Your task to perform on an android device: toggle pop-ups in chrome Image 0: 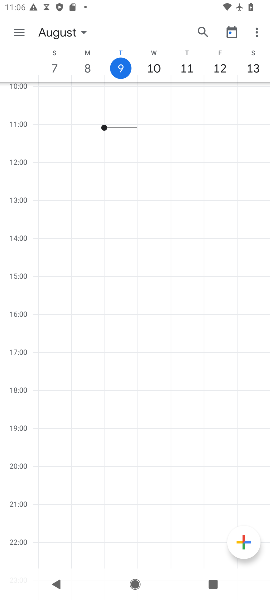
Step 0: press home button
Your task to perform on an android device: toggle pop-ups in chrome Image 1: 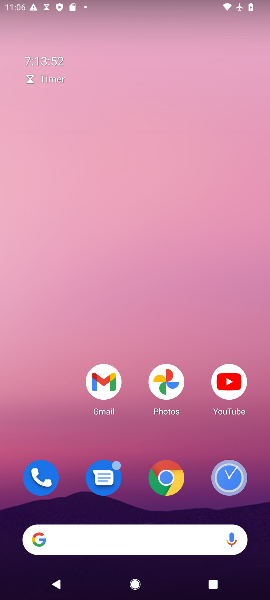
Step 1: drag from (191, 359) to (143, 5)
Your task to perform on an android device: toggle pop-ups in chrome Image 2: 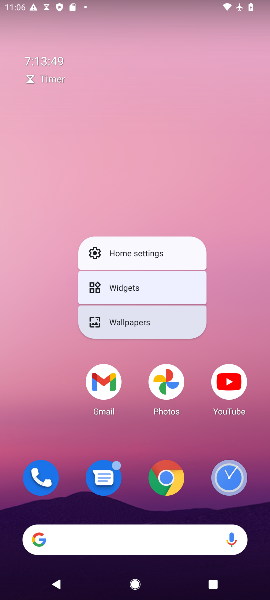
Step 2: drag from (265, 456) to (206, 96)
Your task to perform on an android device: toggle pop-ups in chrome Image 3: 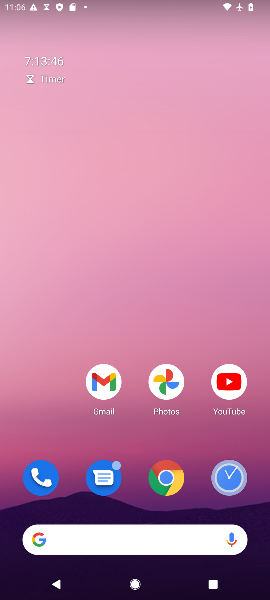
Step 3: drag from (198, 461) to (156, 34)
Your task to perform on an android device: toggle pop-ups in chrome Image 4: 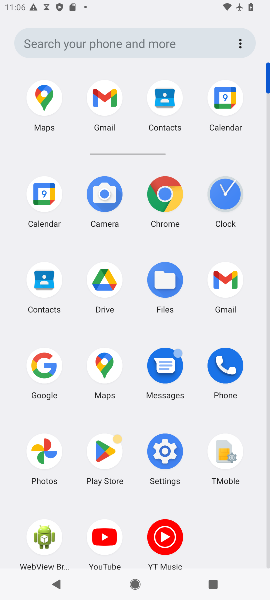
Step 4: click (157, 205)
Your task to perform on an android device: toggle pop-ups in chrome Image 5: 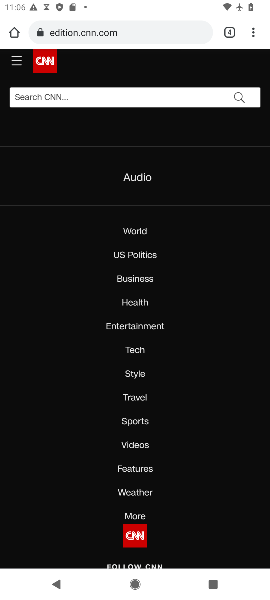
Step 5: click (249, 34)
Your task to perform on an android device: toggle pop-ups in chrome Image 6: 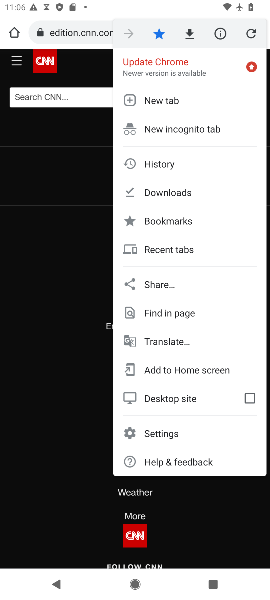
Step 6: click (169, 427)
Your task to perform on an android device: toggle pop-ups in chrome Image 7: 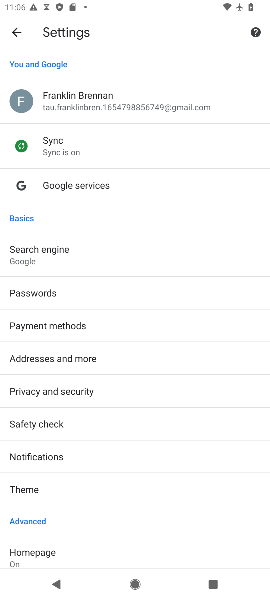
Step 7: drag from (81, 535) to (83, 275)
Your task to perform on an android device: toggle pop-ups in chrome Image 8: 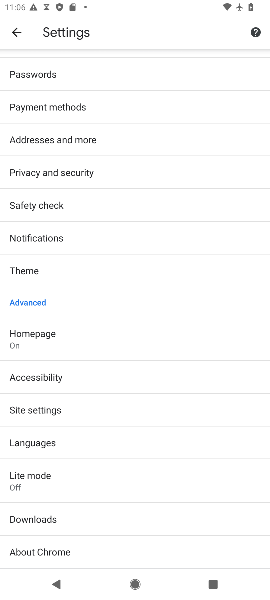
Step 8: click (90, 421)
Your task to perform on an android device: toggle pop-ups in chrome Image 9: 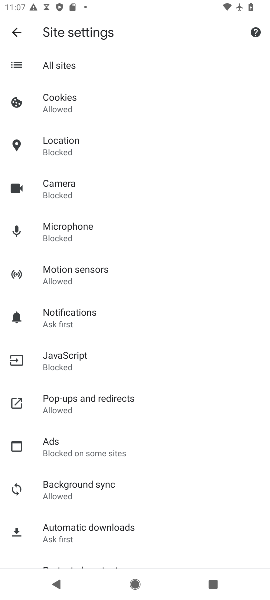
Step 9: click (97, 406)
Your task to perform on an android device: toggle pop-ups in chrome Image 10: 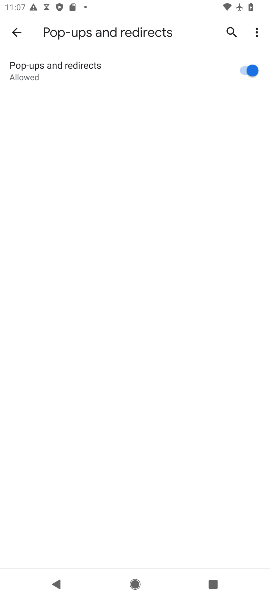
Step 10: click (241, 76)
Your task to perform on an android device: toggle pop-ups in chrome Image 11: 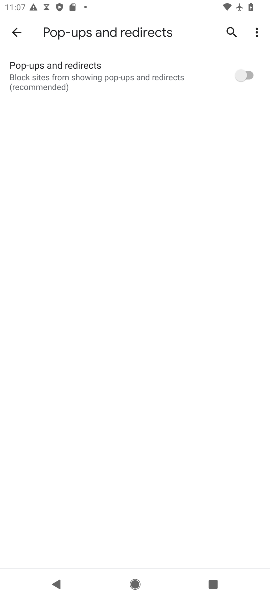
Step 11: task complete